Your task to perform on an android device: turn pop-ups on in chrome Image 0: 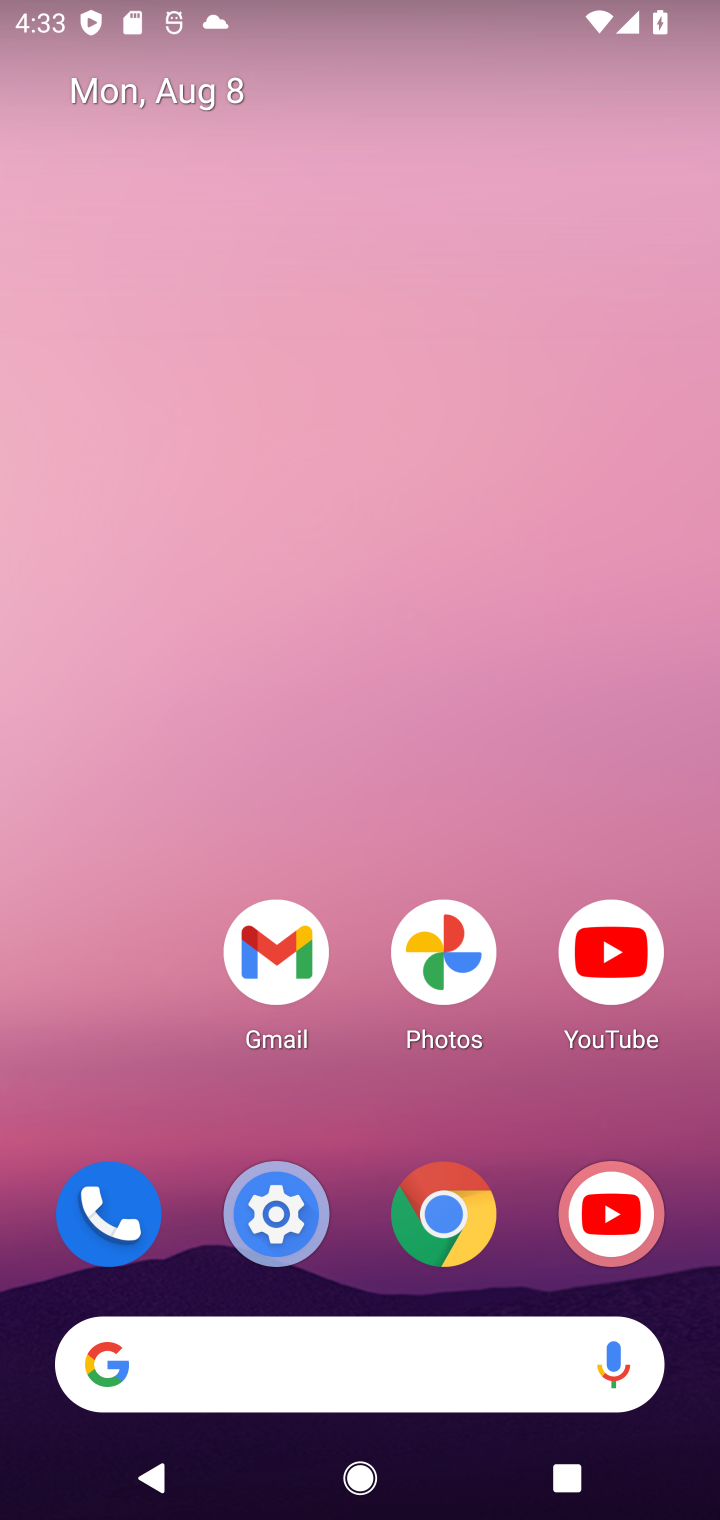
Step 0: click (445, 1212)
Your task to perform on an android device: turn pop-ups on in chrome Image 1: 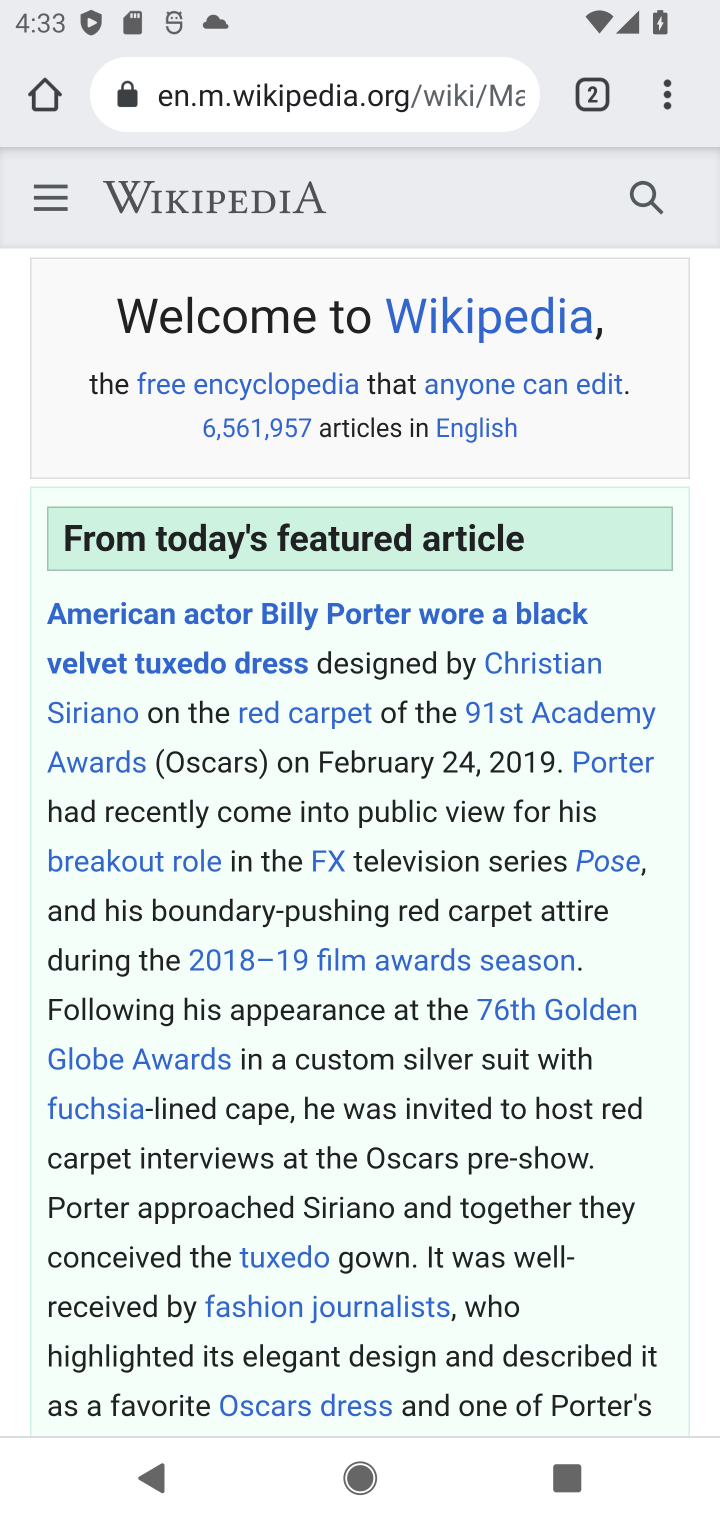
Step 1: click (669, 105)
Your task to perform on an android device: turn pop-ups on in chrome Image 2: 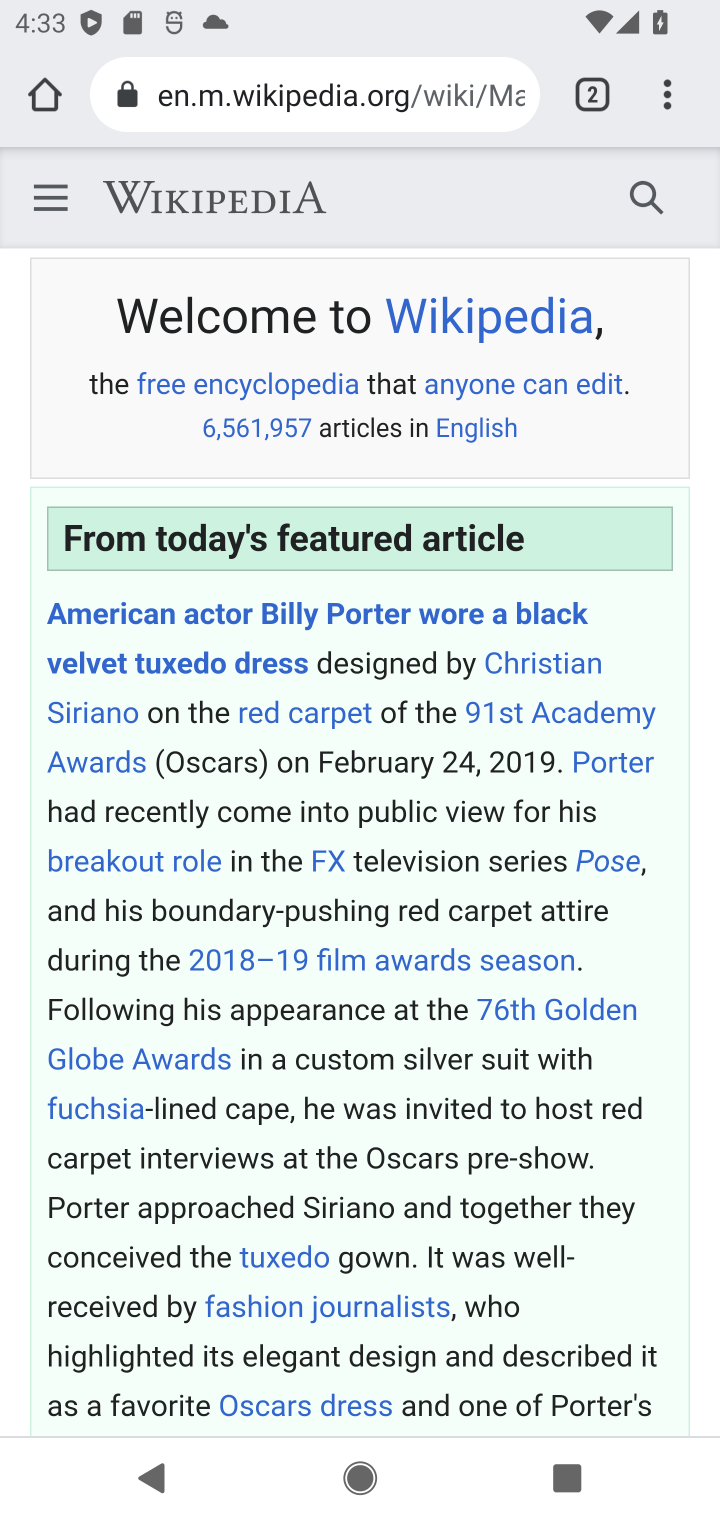
Step 2: drag from (666, 108) to (433, 1243)
Your task to perform on an android device: turn pop-ups on in chrome Image 3: 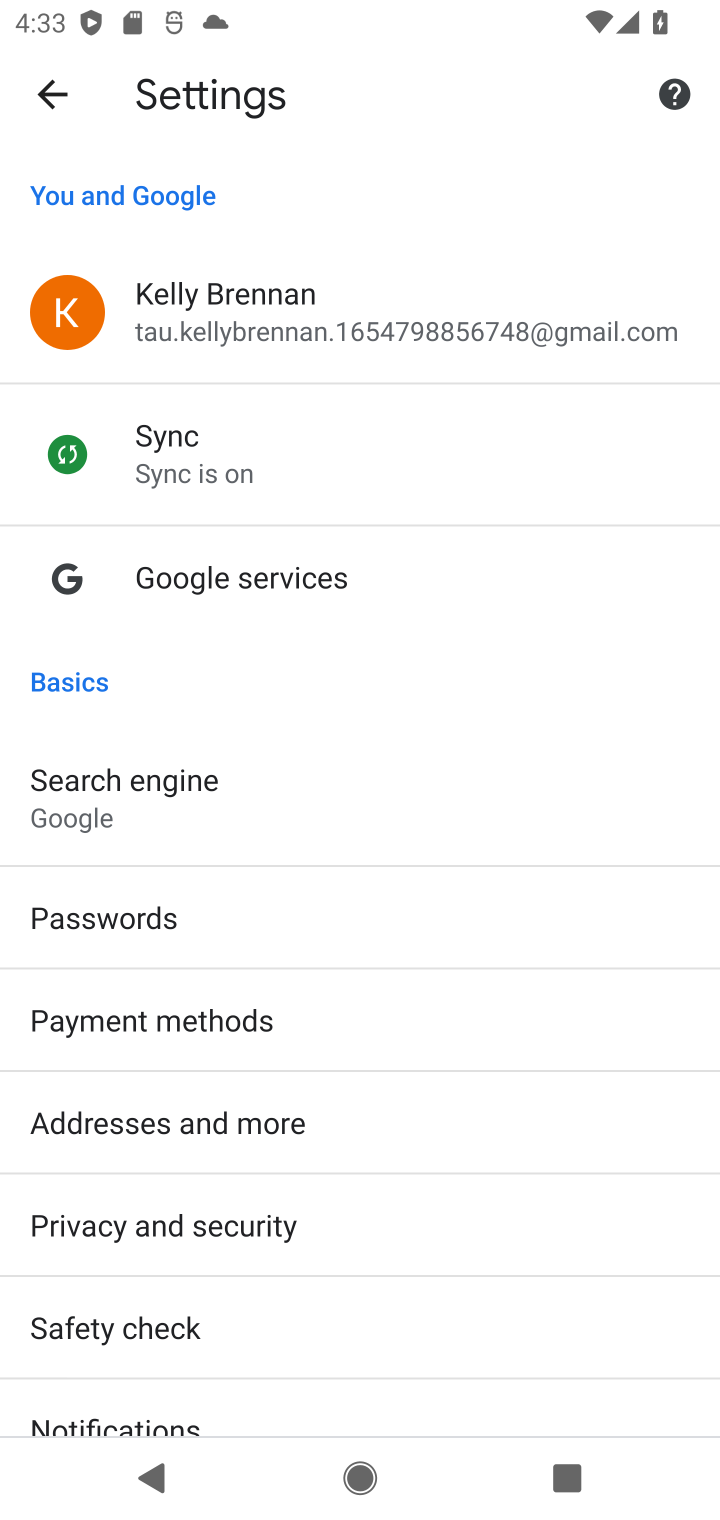
Step 3: drag from (160, 1316) to (179, 595)
Your task to perform on an android device: turn pop-ups on in chrome Image 4: 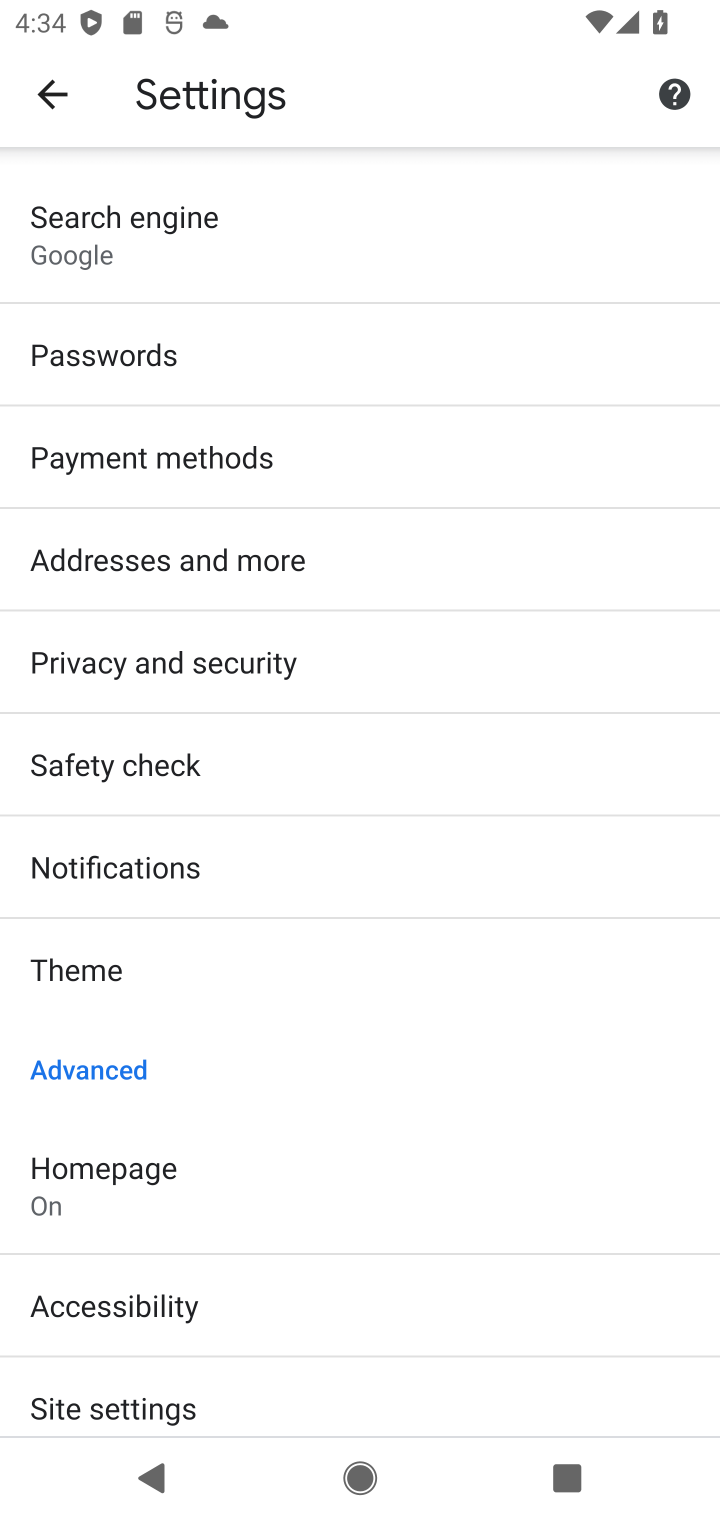
Step 4: click (95, 1402)
Your task to perform on an android device: turn pop-ups on in chrome Image 5: 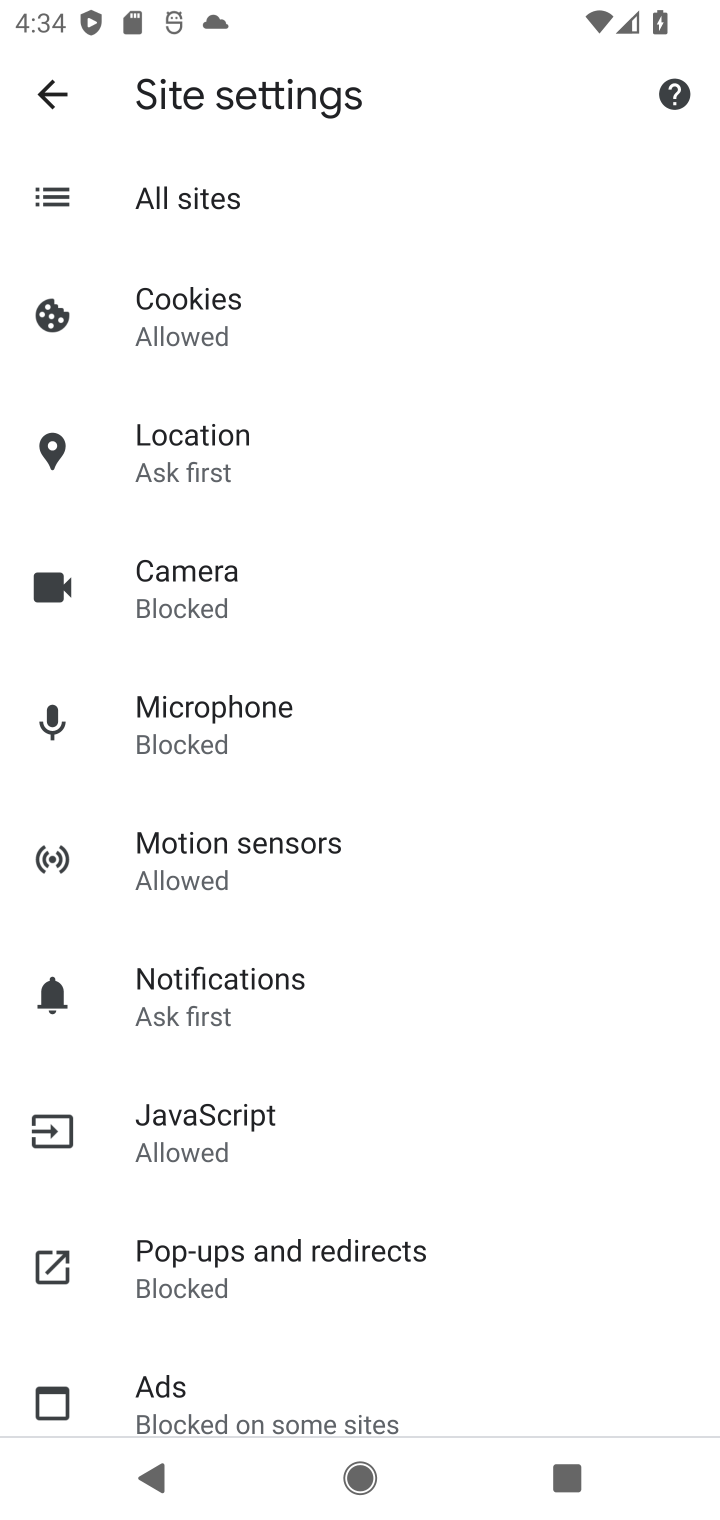
Step 5: click (242, 1246)
Your task to perform on an android device: turn pop-ups on in chrome Image 6: 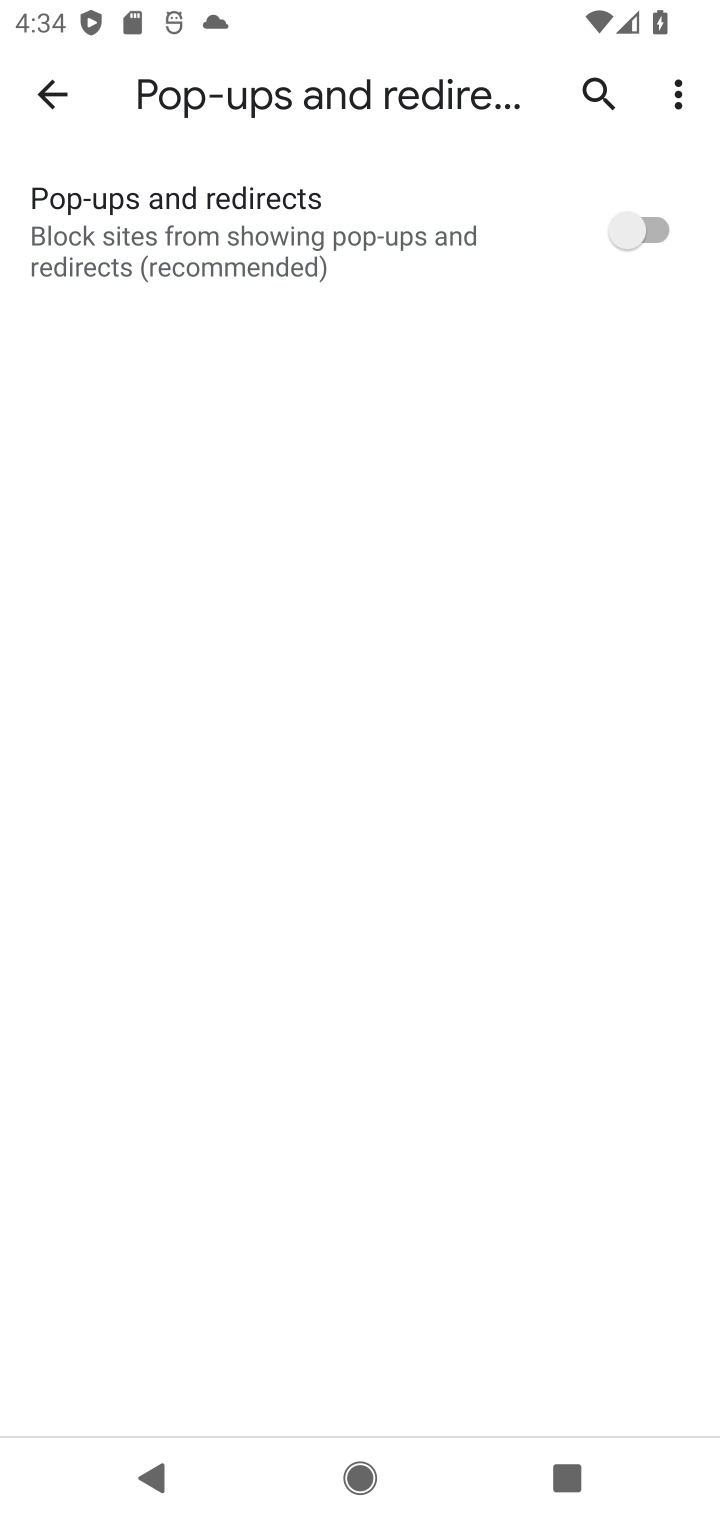
Step 6: click (644, 225)
Your task to perform on an android device: turn pop-ups on in chrome Image 7: 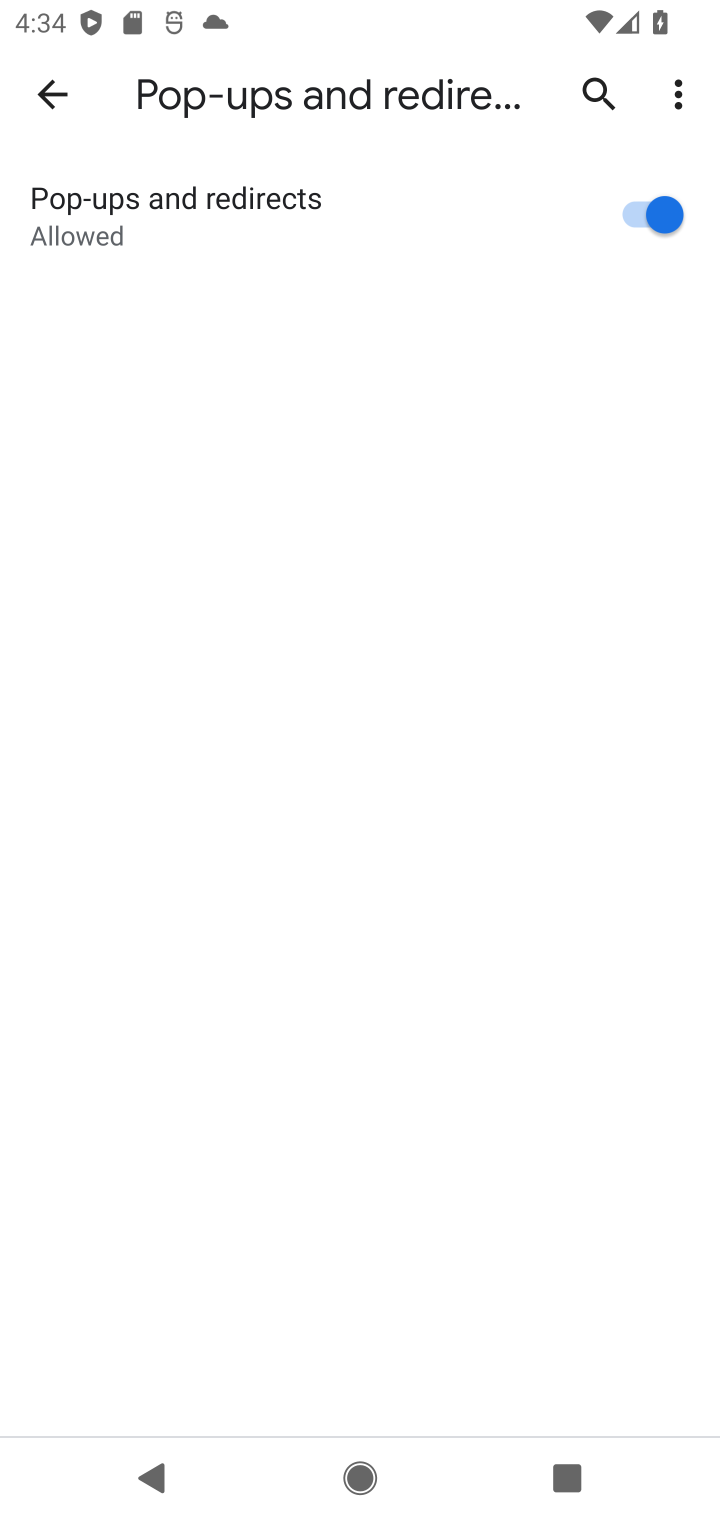
Step 7: task complete